Your task to perform on an android device: Open calendar and show me the first week of next month Image 0: 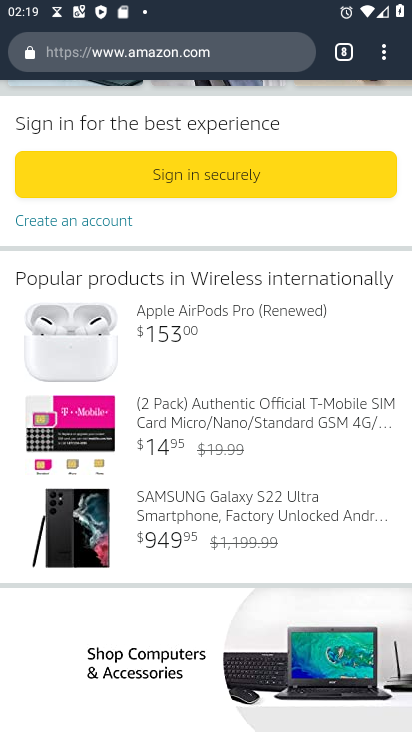
Step 0: press home button
Your task to perform on an android device: Open calendar and show me the first week of next month Image 1: 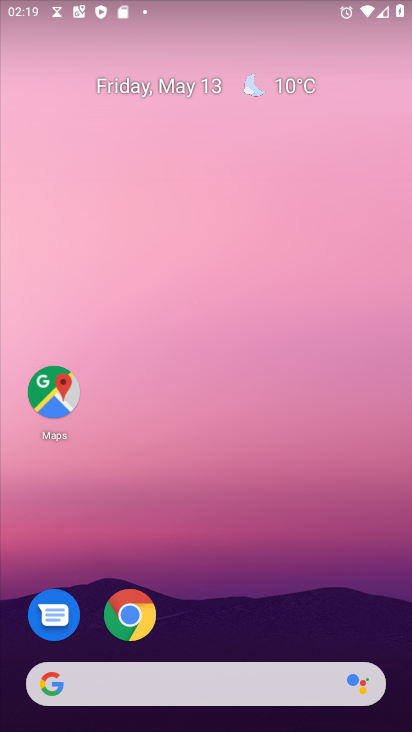
Step 1: drag from (220, 597) to (31, 113)
Your task to perform on an android device: Open calendar and show me the first week of next month Image 2: 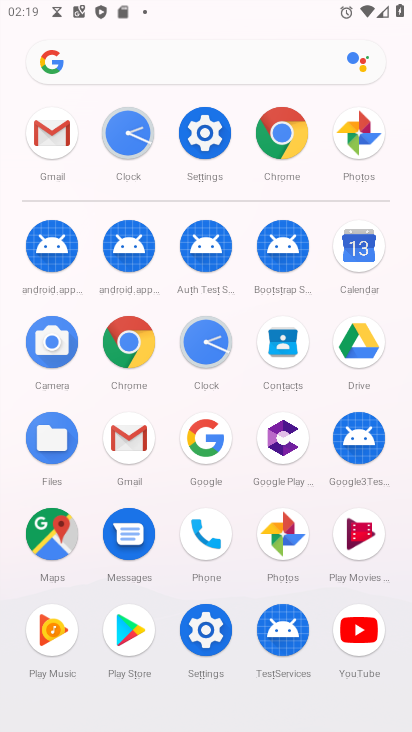
Step 2: click (353, 246)
Your task to perform on an android device: Open calendar and show me the first week of next month Image 3: 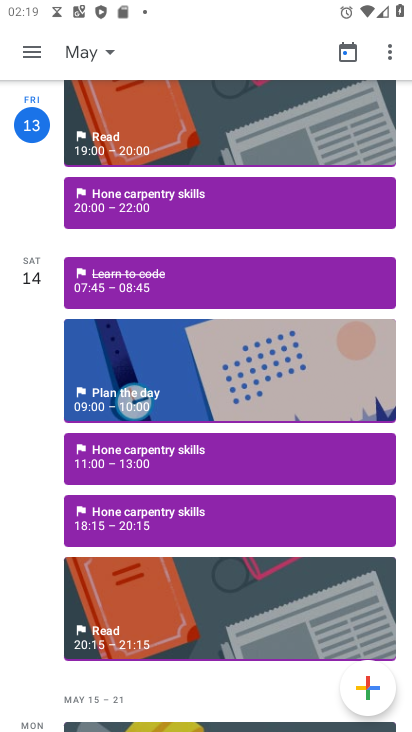
Step 3: click (95, 57)
Your task to perform on an android device: Open calendar and show me the first week of next month Image 4: 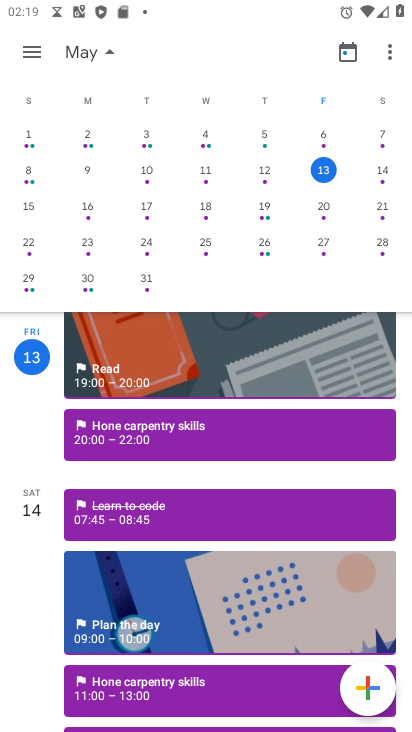
Step 4: drag from (361, 225) to (10, 201)
Your task to perform on an android device: Open calendar and show me the first week of next month Image 5: 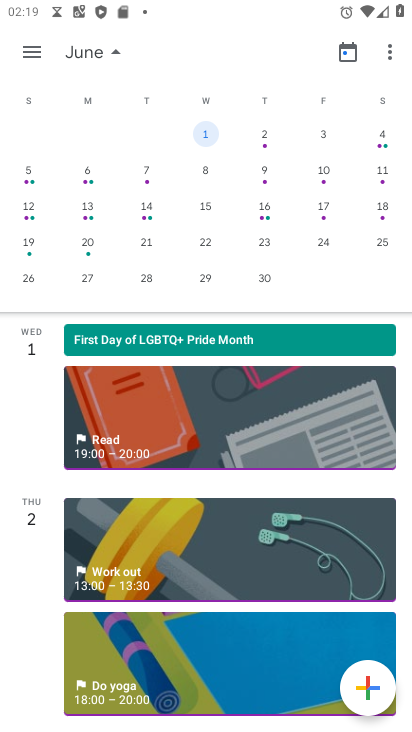
Step 5: click (28, 54)
Your task to perform on an android device: Open calendar and show me the first week of next month Image 6: 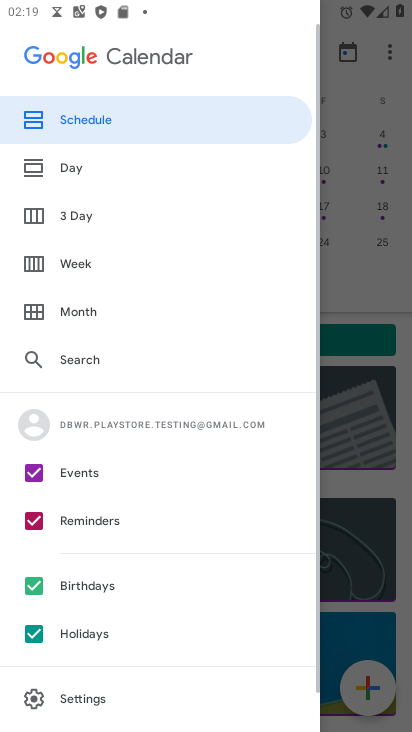
Step 6: click (68, 257)
Your task to perform on an android device: Open calendar and show me the first week of next month Image 7: 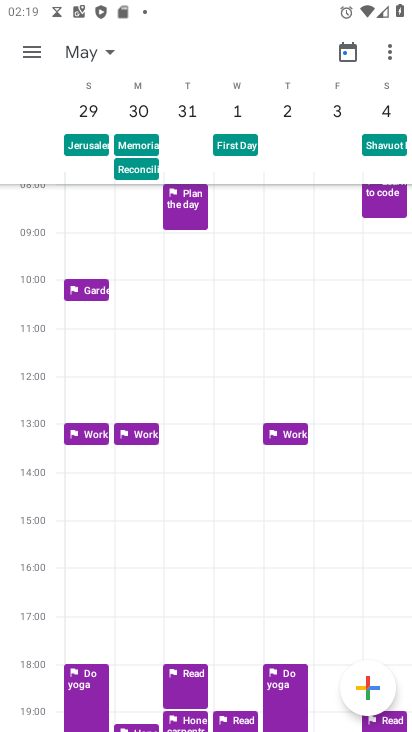
Step 7: task complete